Your task to perform on an android device: Open the calendar and show me this week's events Image 0: 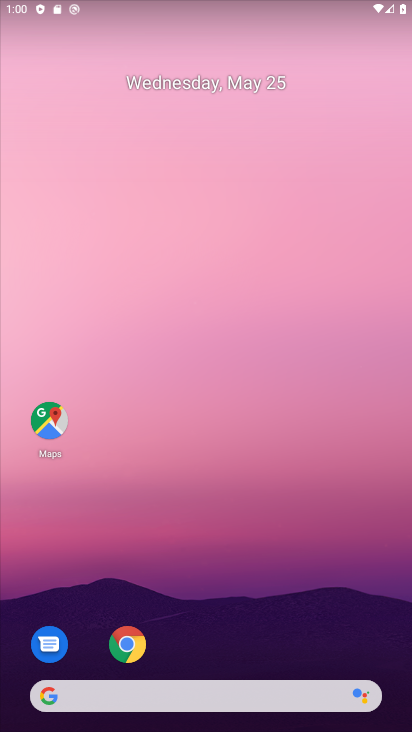
Step 0: drag from (194, 639) to (131, 211)
Your task to perform on an android device: Open the calendar and show me this week's events Image 1: 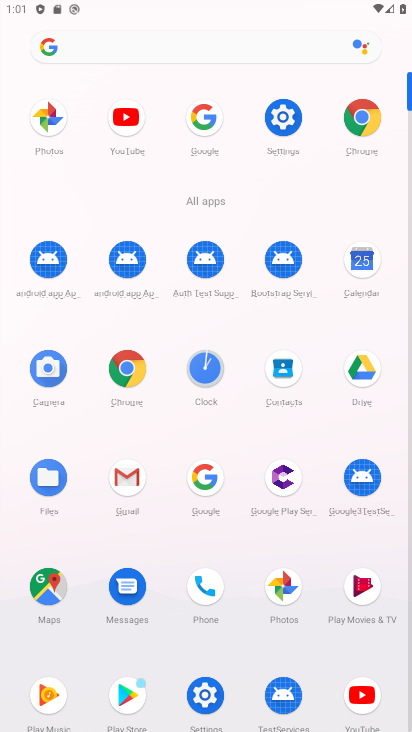
Step 1: click (375, 280)
Your task to perform on an android device: Open the calendar and show me this week's events Image 2: 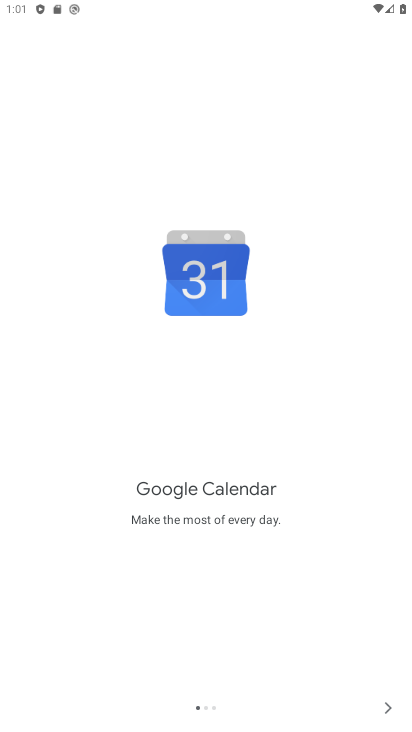
Step 2: click (388, 710)
Your task to perform on an android device: Open the calendar and show me this week's events Image 3: 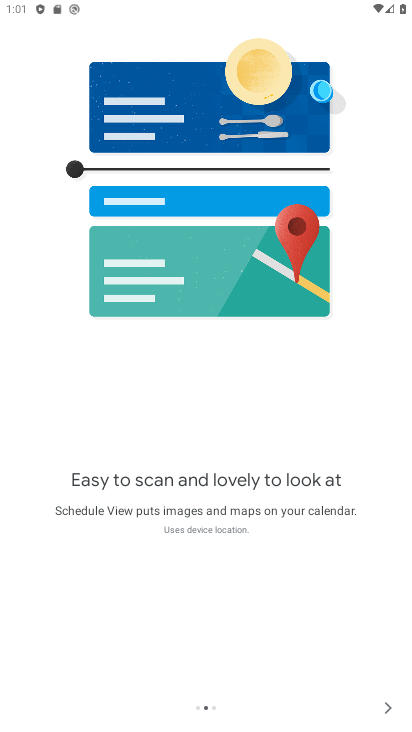
Step 3: click (388, 707)
Your task to perform on an android device: Open the calendar and show me this week's events Image 4: 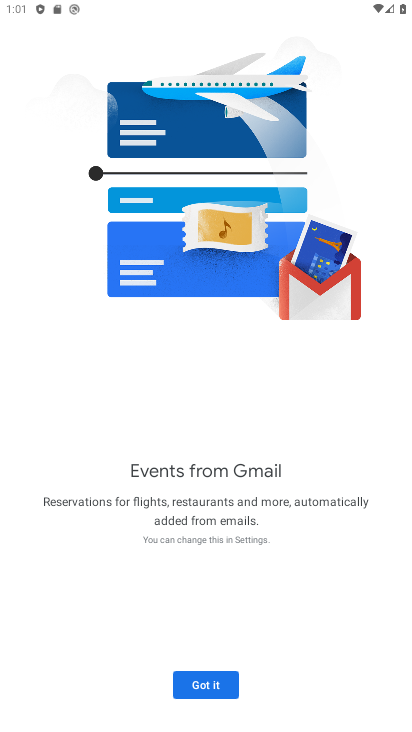
Step 4: click (196, 672)
Your task to perform on an android device: Open the calendar and show me this week's events Image 5: 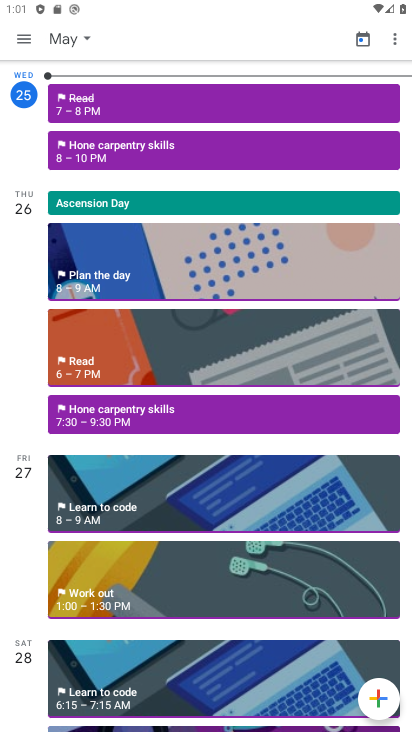
Step 5: click (24, 47)
Your task to perform on an android device: Open the calendar and show me this week's events Image 6: 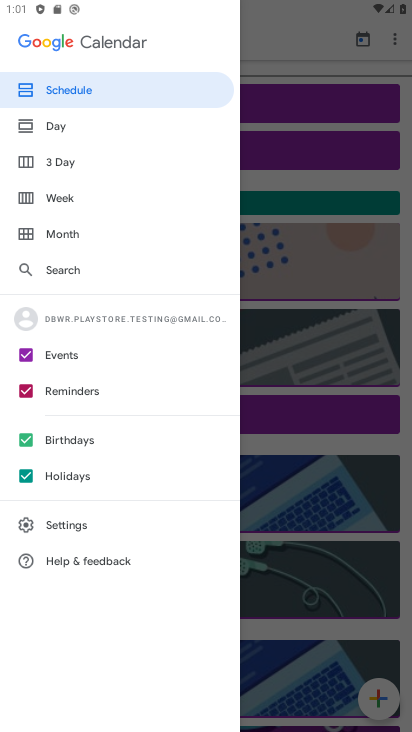
Step 6: task complete